Your task to perform on an android device: toggle notification dots Image 0: 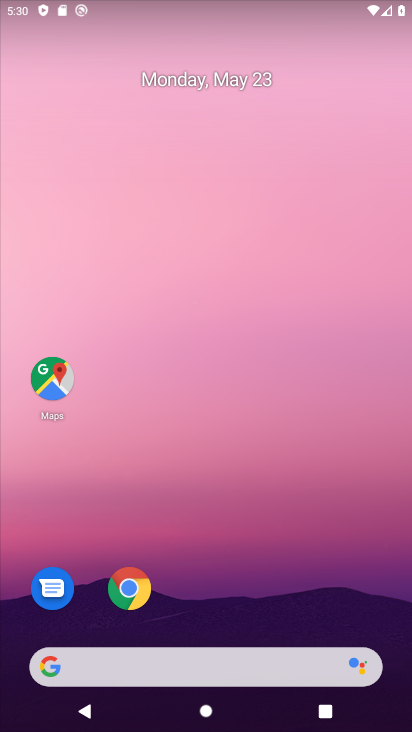
Step 0: drag from (288, 484) to (274, 52)
Your task to perform on an android device: toggle notification dots Image 1: 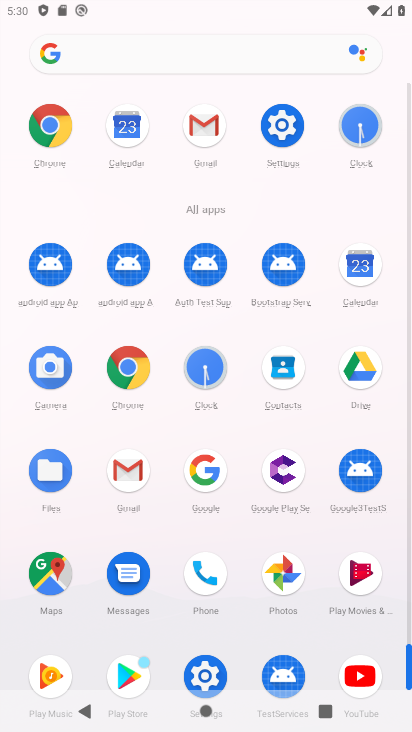
Step 1: drag from (7, 538) to (4, 168)
Your task to perform on an android device: toggle notification dots Image 2: 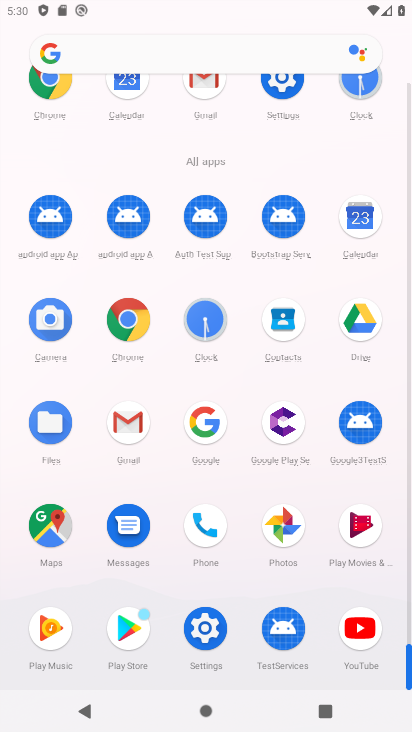
Step 2: click (201, 629)
Your task to perform on an android device: toggle notification dots Image 3: 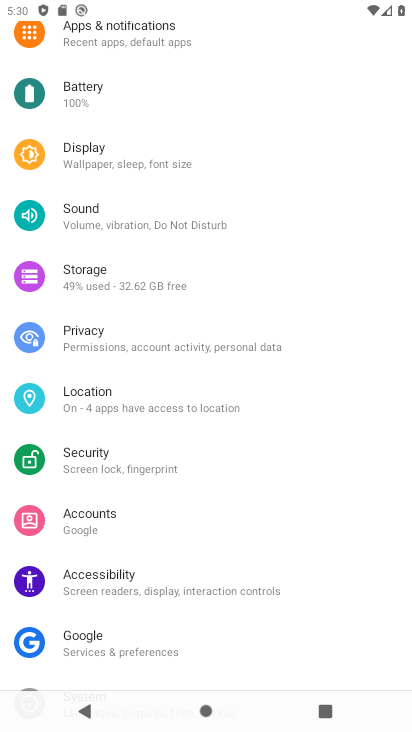
Step 3: drag from (268, 137) to (288, 504)
Your task to perform on an android device: toggle notification dots Image 4: 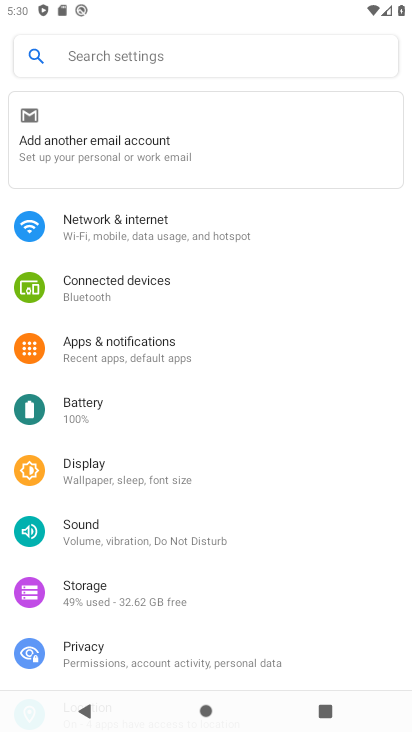
Step 4: click (153, 355)
Your task to perform on an android device: toggle notification dots Image 5: 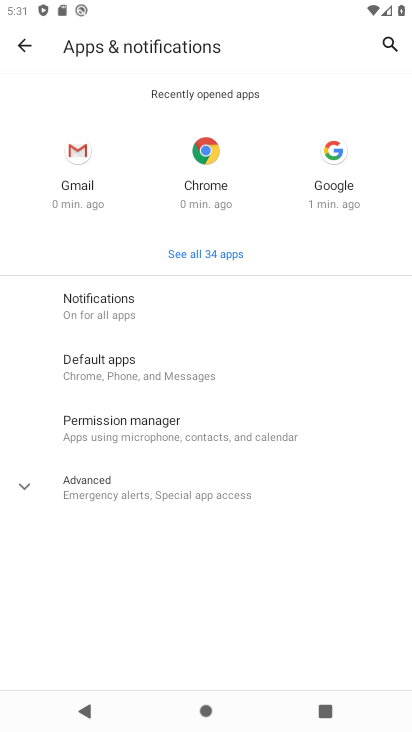
Step 5: click (141, 291)
Your task to perform on an android device: toggle notification dots Image 6: 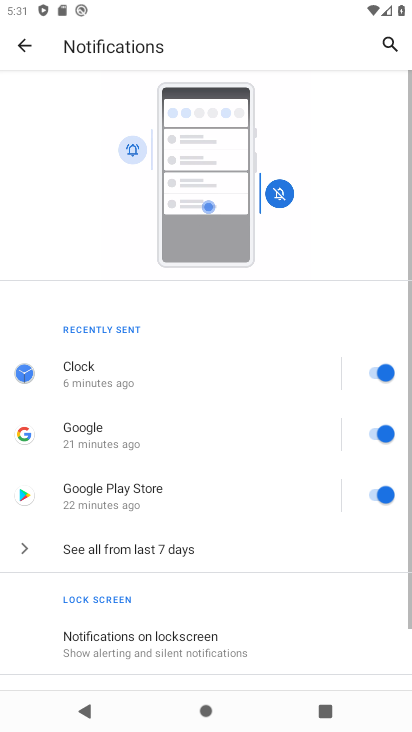
Step 6: drag from (233, 581) to (240, 154)
Your task to perform on an android device: toggle notification dots Image 7: 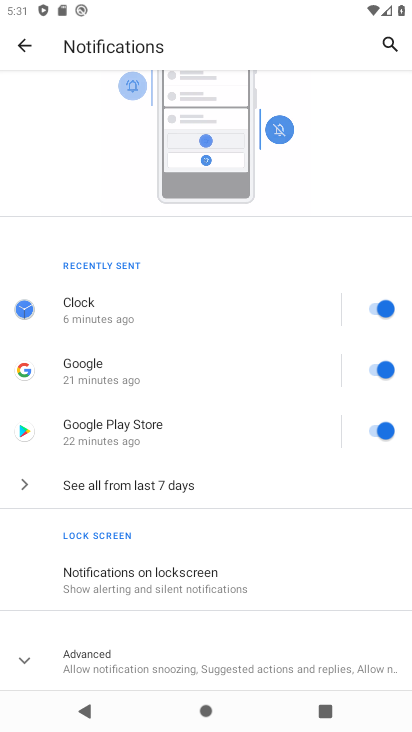
Step 7: click (112, 669)
Your task to perform on an android device: toggle notification dots Image 8: 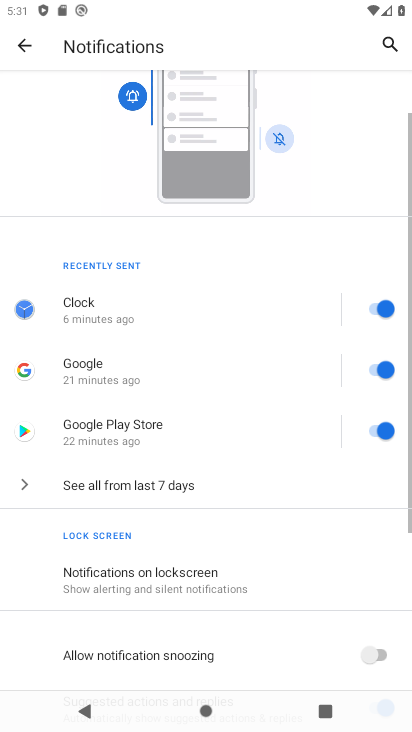
Step 8: task complete